Your task to perform on an android device: Open Google Chrome and open the bookmarks view Image 0: 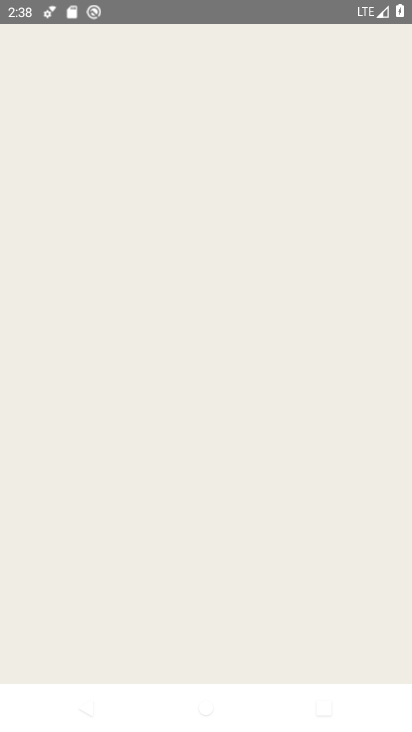
Step 0: click (292, 306)
Your task to perform on an android device: Open Google Chrome and open the bookmarks view Image 1: 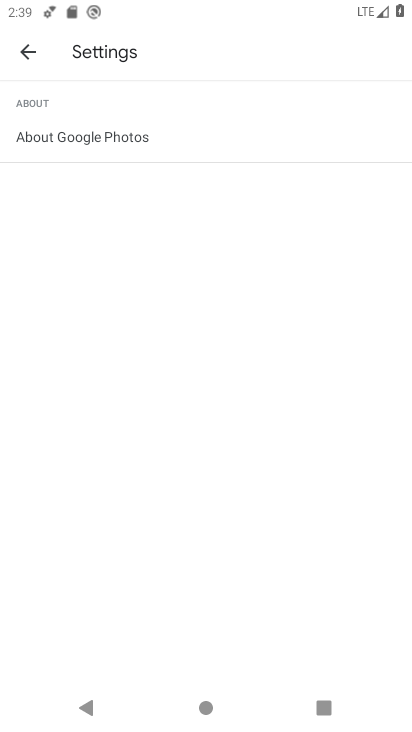
Step 1: press home button
Your task to perform on an android device: Open Google Chrome and open the bookmarks view Image 2: 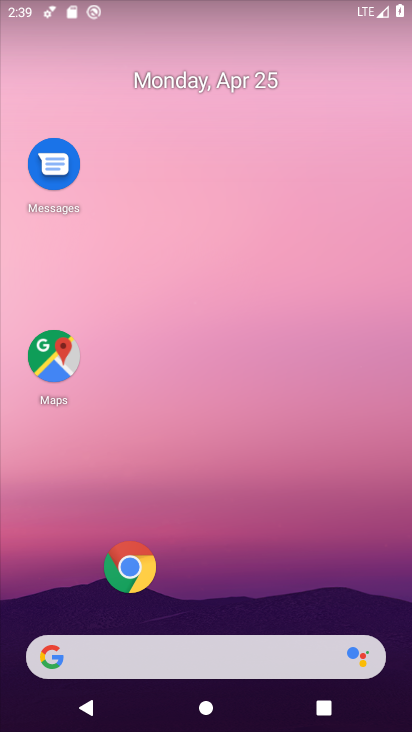
Step 2: drag from (212, 584) to (296, 6)
Your task to perform on an android device: Open Google Chrome and open the bookmarks view Image 3: 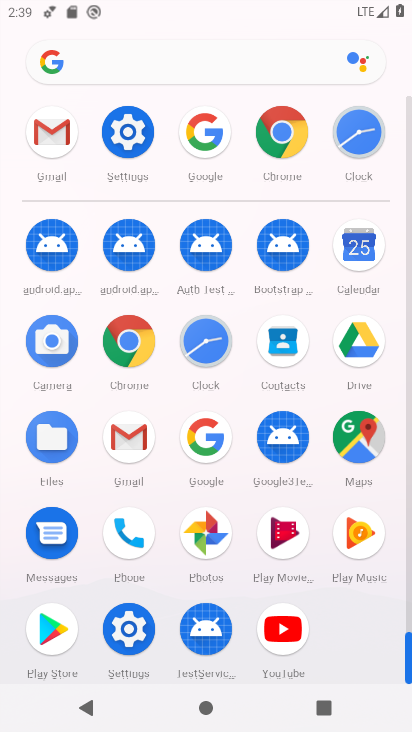
Step 3: click (127, 375)
Your task to perform on an android device: Open Google Chrome and open the bookmarks view Image 4: 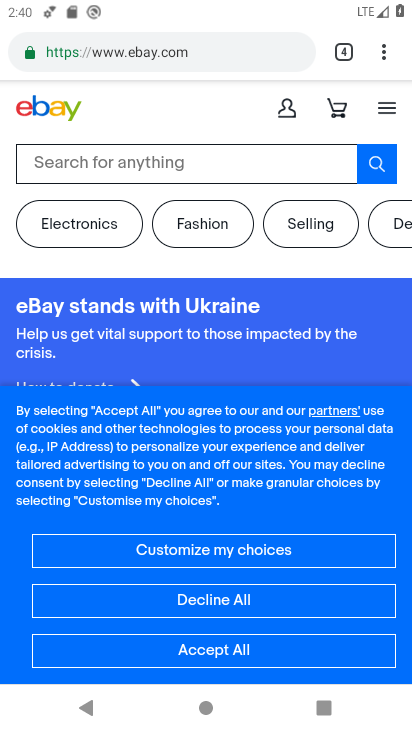
Step 4: click (387, 55)
Your task to perform on an android device: Open Google Chrome and open the bookmarks view Image 5: 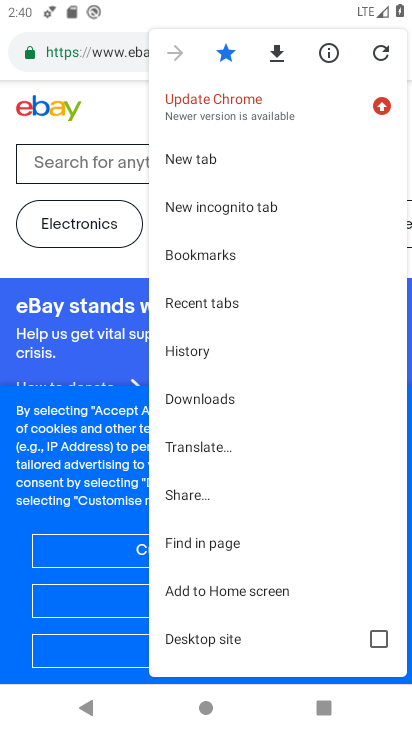
Step 5: click (216, 255)
Your task to perform on an android device: Open Google Chrome and open the bookmarks view Image 6: 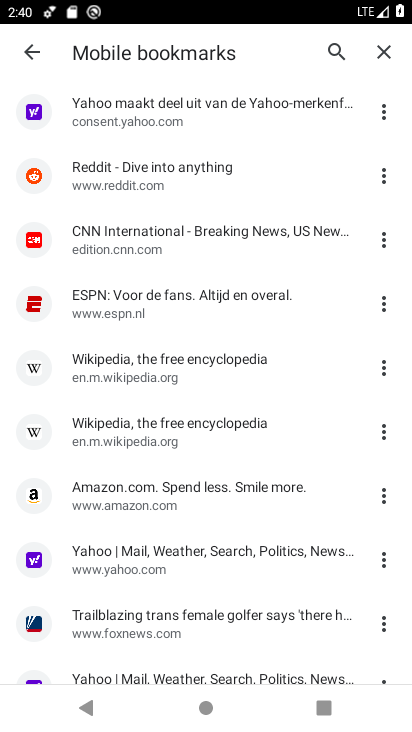
Step 6: task complete